Your task to perform on an android device: Open internet settings Image 0: 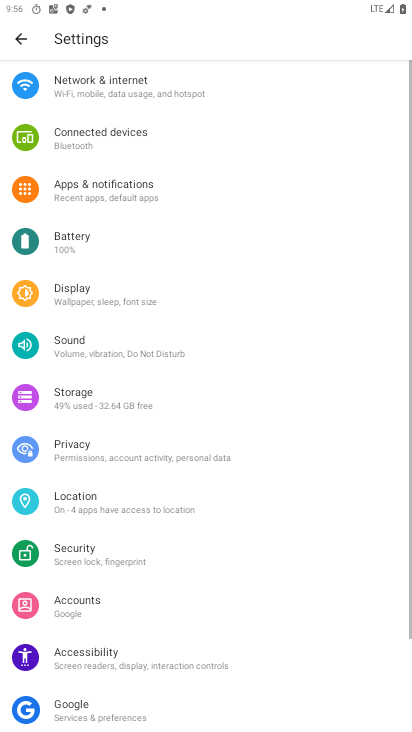
Step 0: click (84, 85)
Your task to perform on an android device: Open internet settings Image 1: 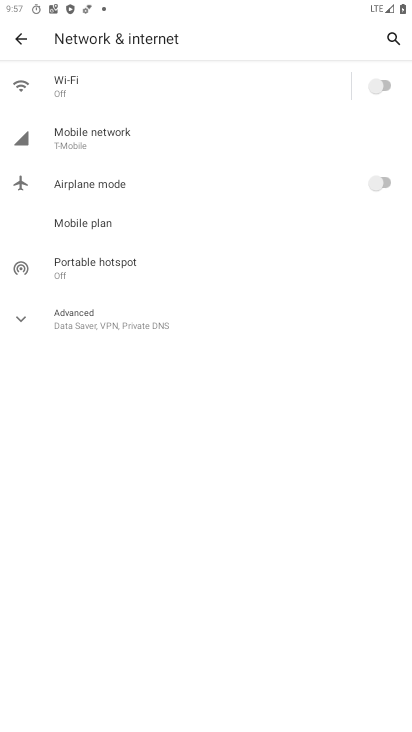
Step 1: click (57, 142)
Your task to perform on an android device: Open internet settings Image 2: 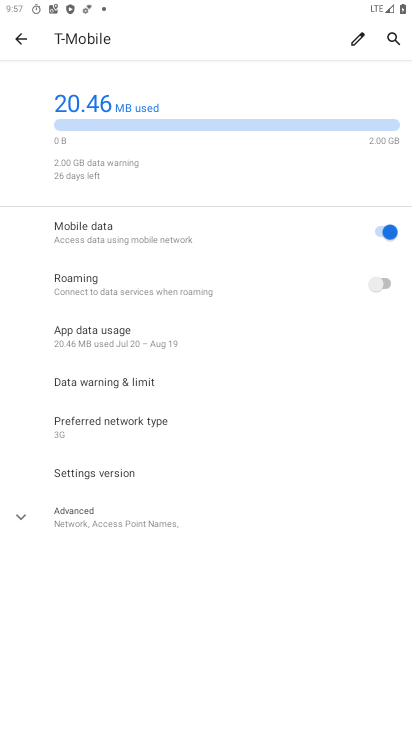
Step 2: task complete